Your task to perform on an android device: turn smart compose on in the gmail app Image 0: 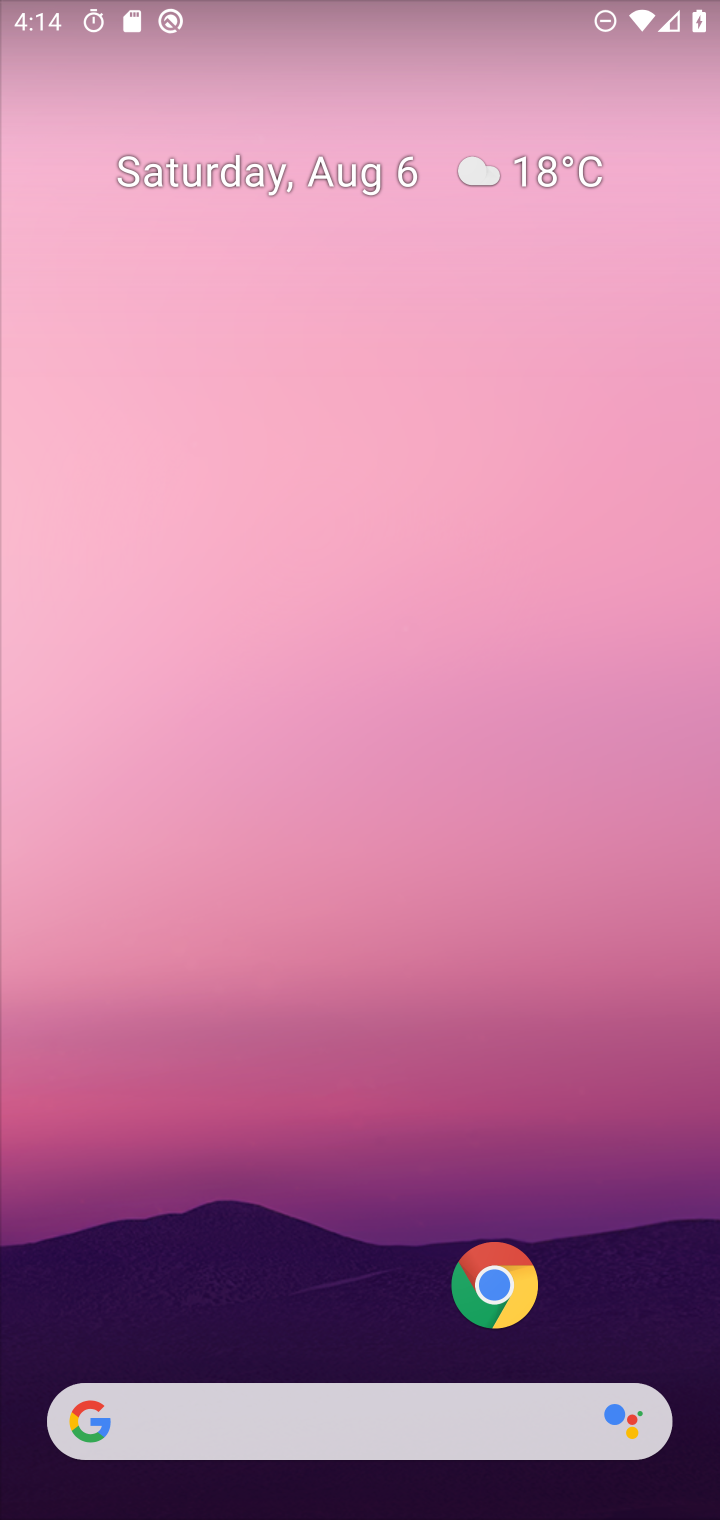
Step 0: drag from (368, 1288) to (403, 74)
Your task to perform on an android device: turn smart compose on in the gmail app Image 1: 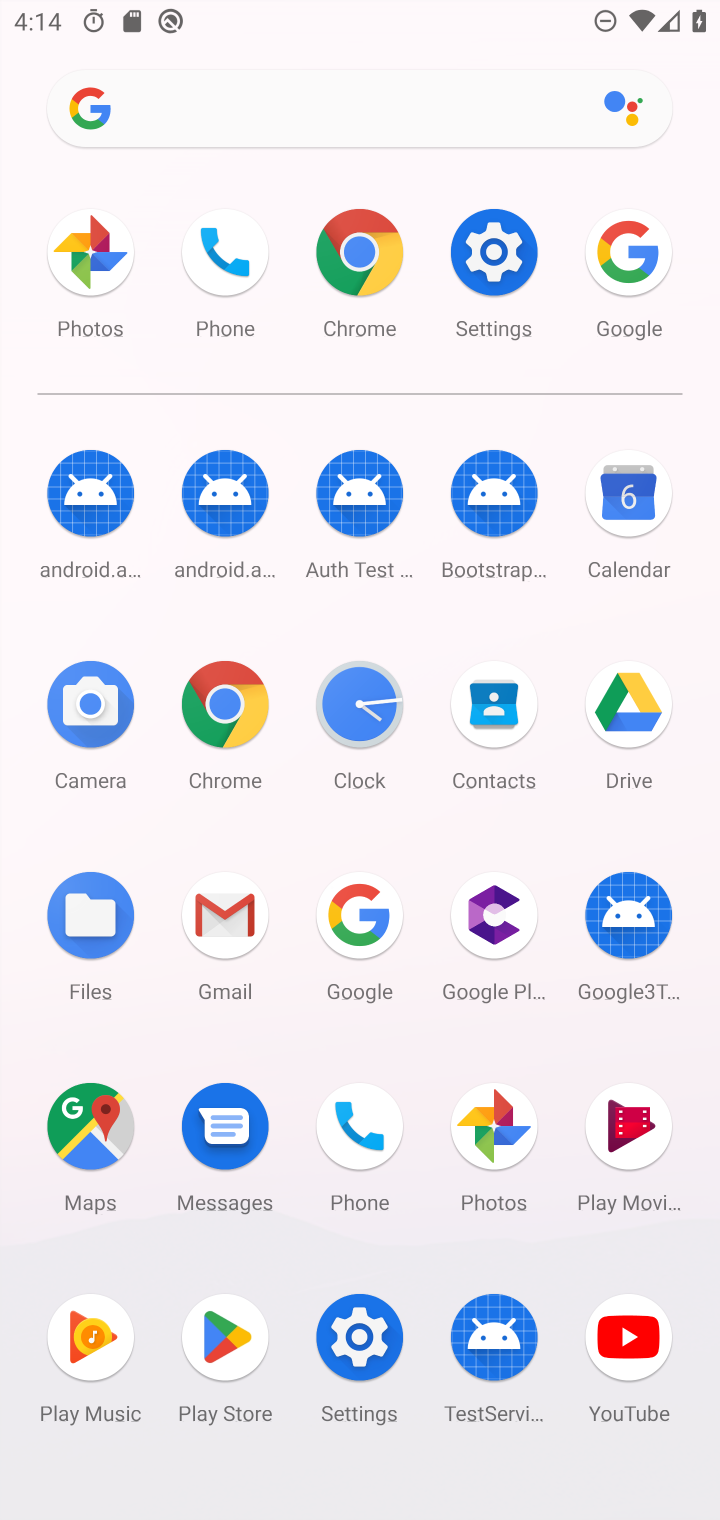
Step 1: click (211, 901)
Your task to perform on an android device: turn smart compose on in the gmail app Image 2: 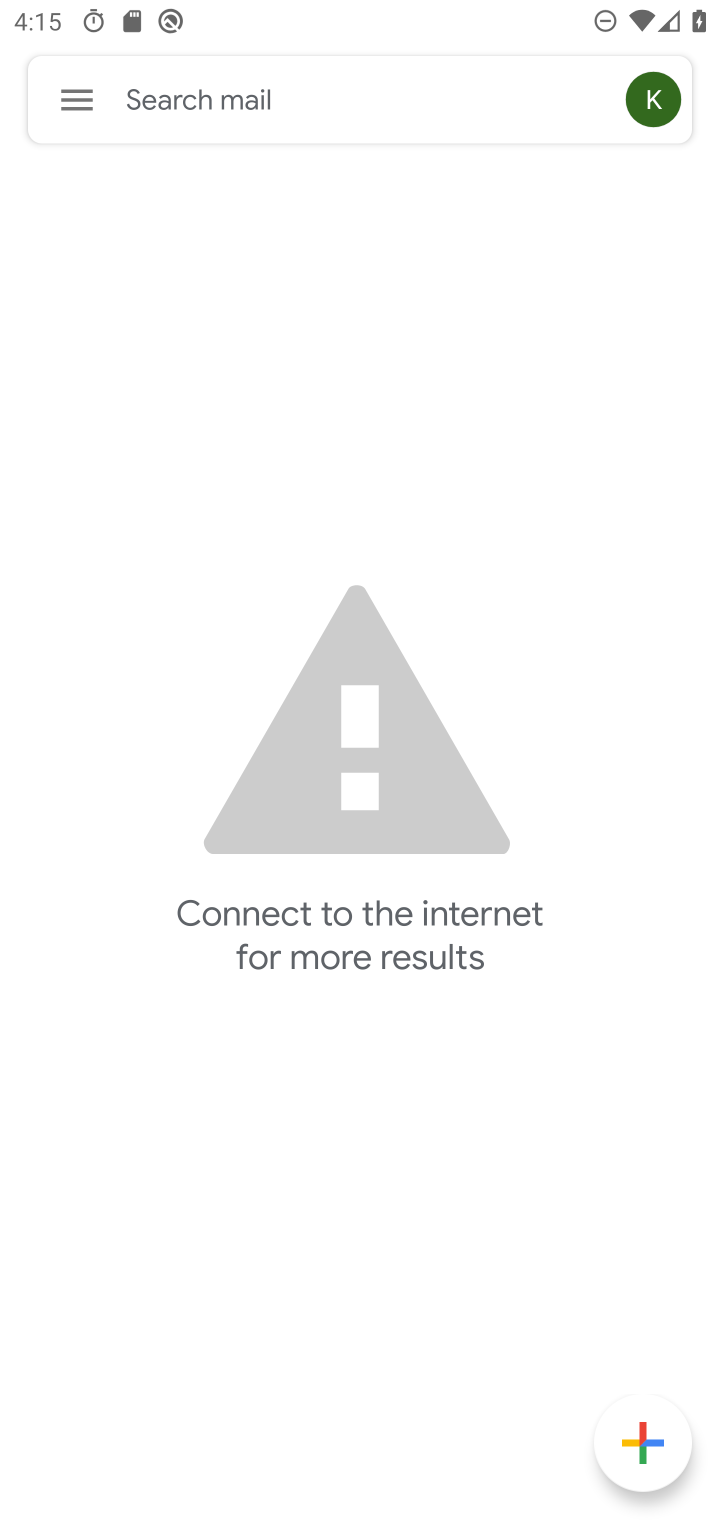
Step 2: press home button
Your task to perform on an android device: turn smart compose on in the gmail app Image 3: 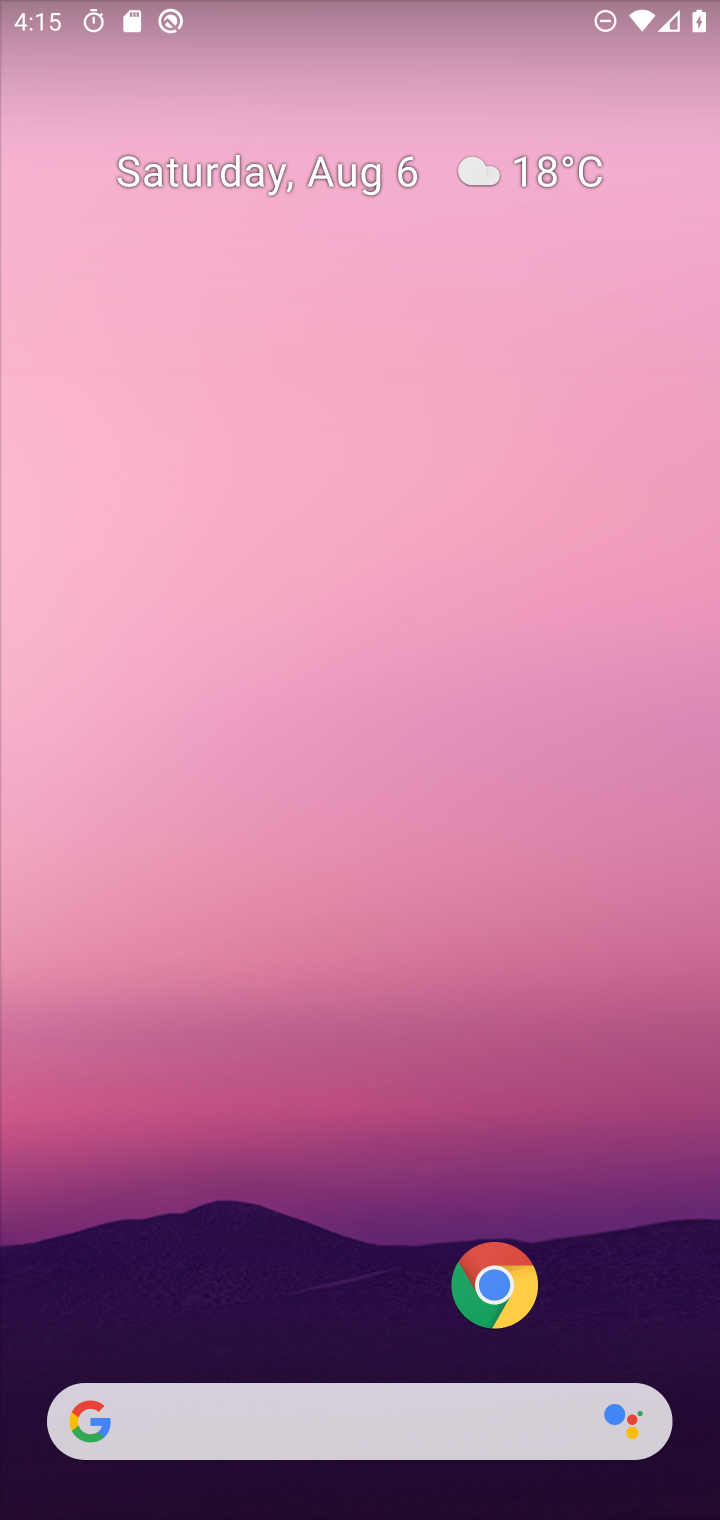
Step 3: drag from (340, 1320) to (294, 266)
Your task to perform on an android device: turn smart compose on in the gmail app Image 4: 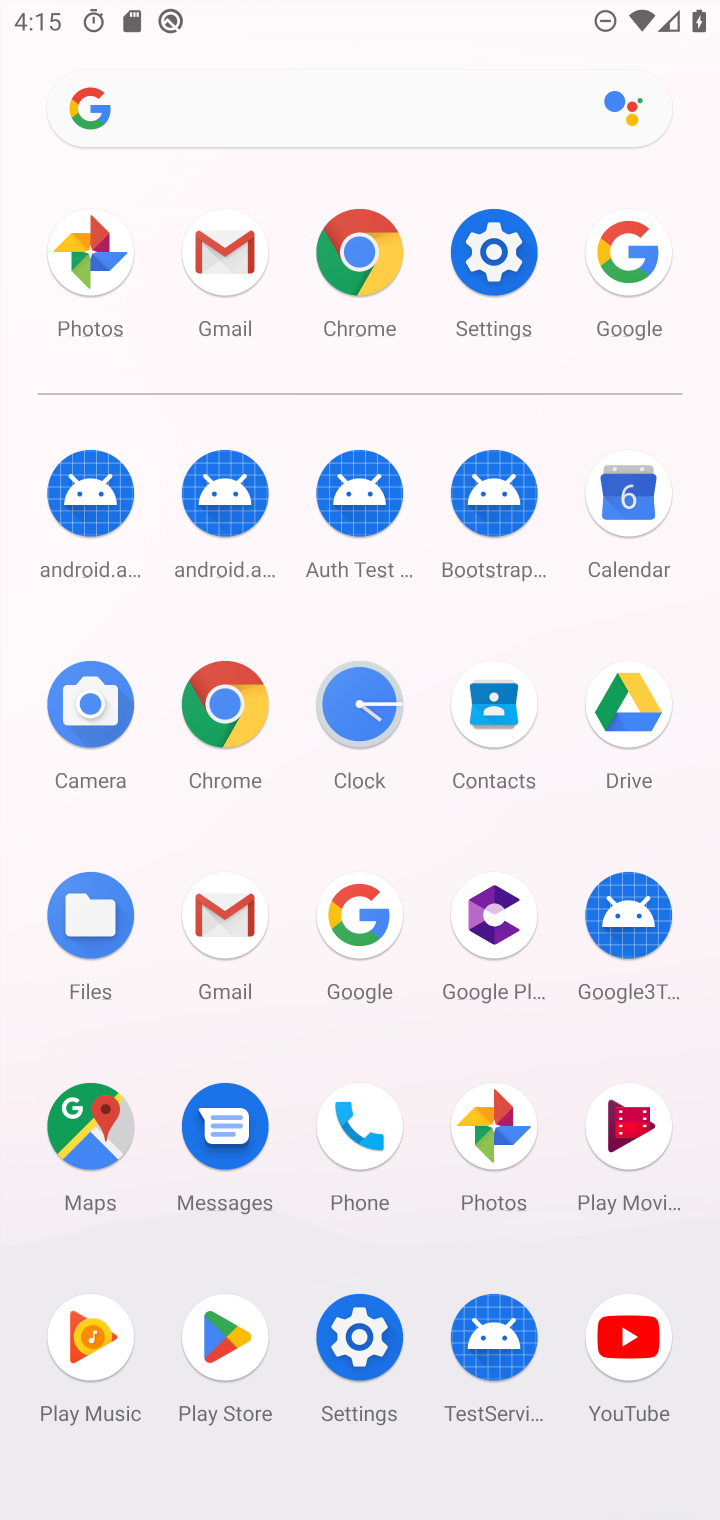
Step 4: click (220, 916)
Your task to perform on an android device: turn smart compose on in the gmail app Image 5: 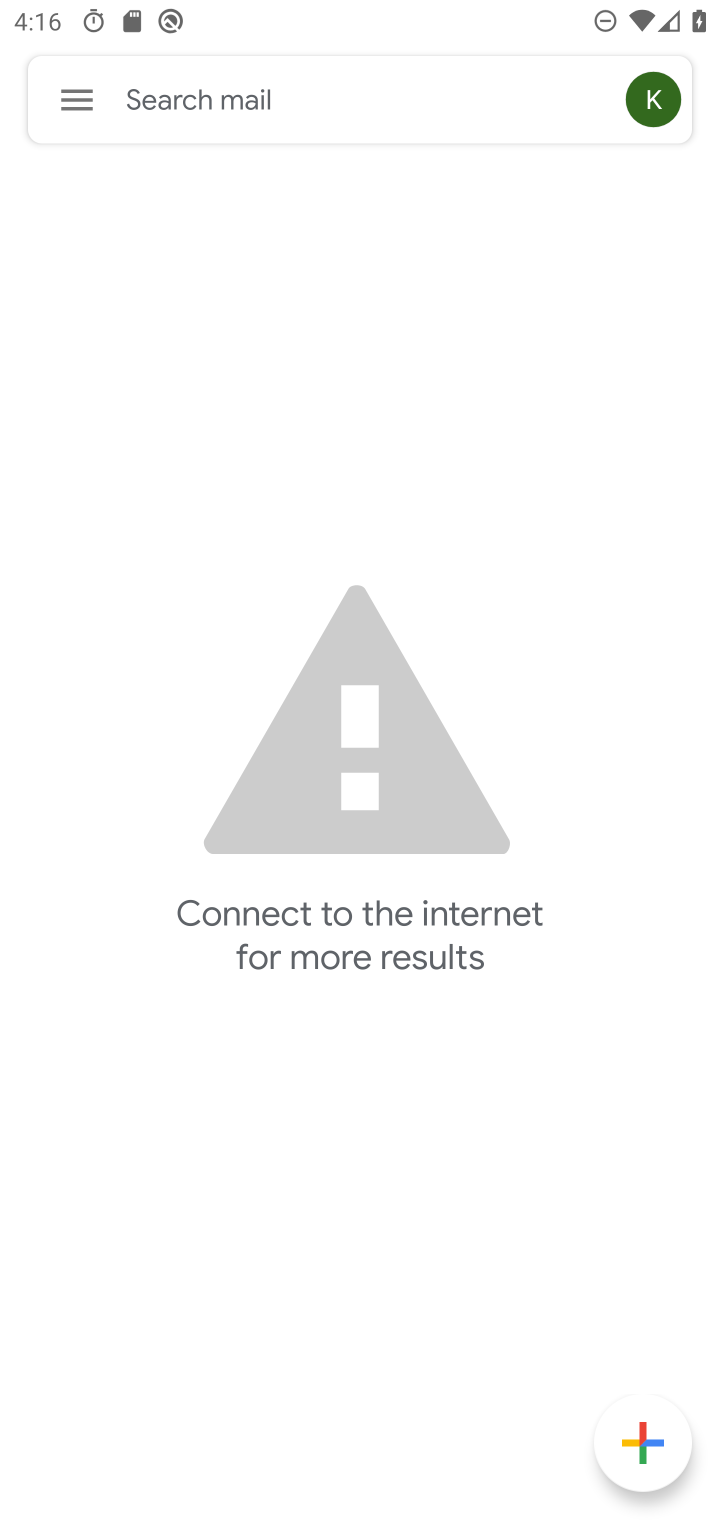
Step 5: click (75, 90)
Your task to perform on an android device: turn smart compose on in the gmail app Image 6: 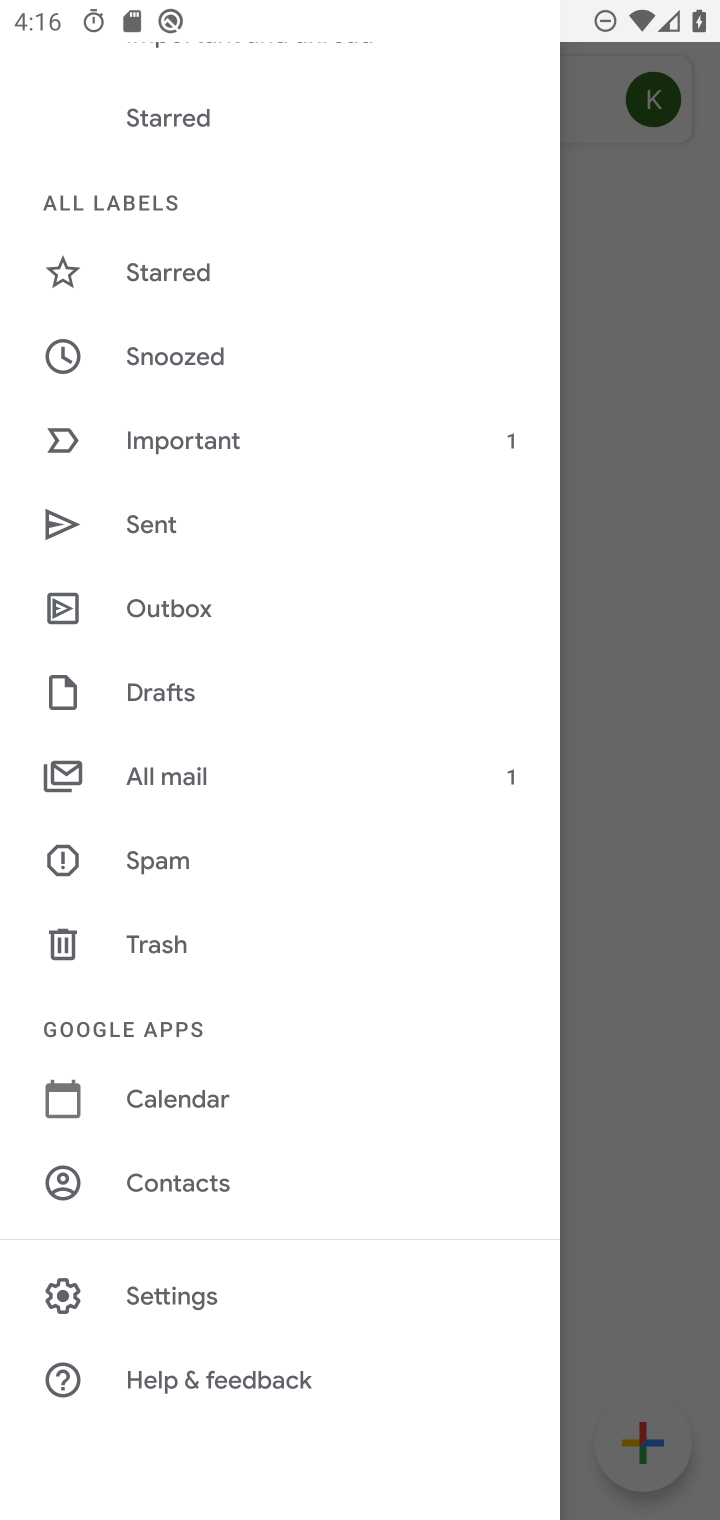
Step 6: click (236, 1285)
Your task to perform on an android device: turn smart compose on in the gmail app Image 7: 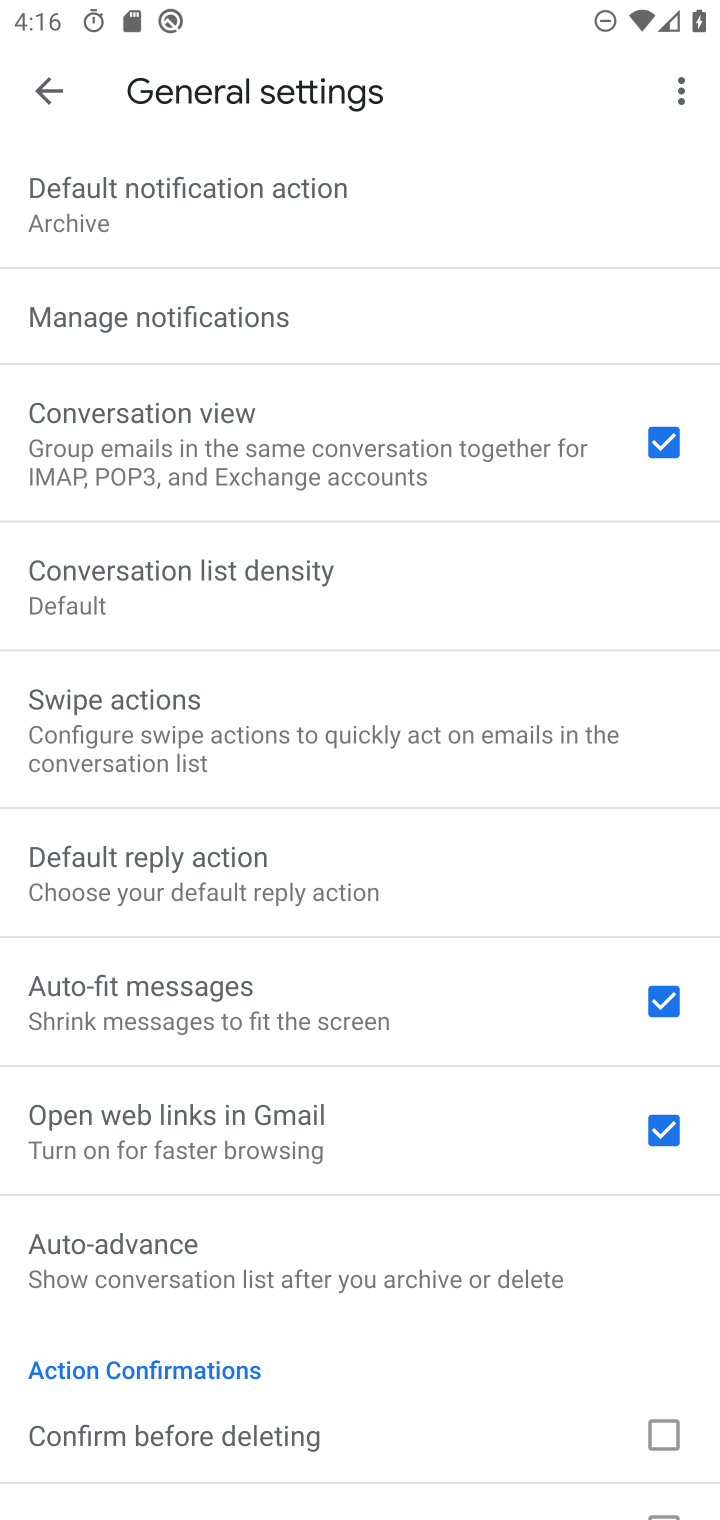
Step 7: click (33, 78)
Your task to perform on an android device: turn smart compose on in the gmail app Image 8: 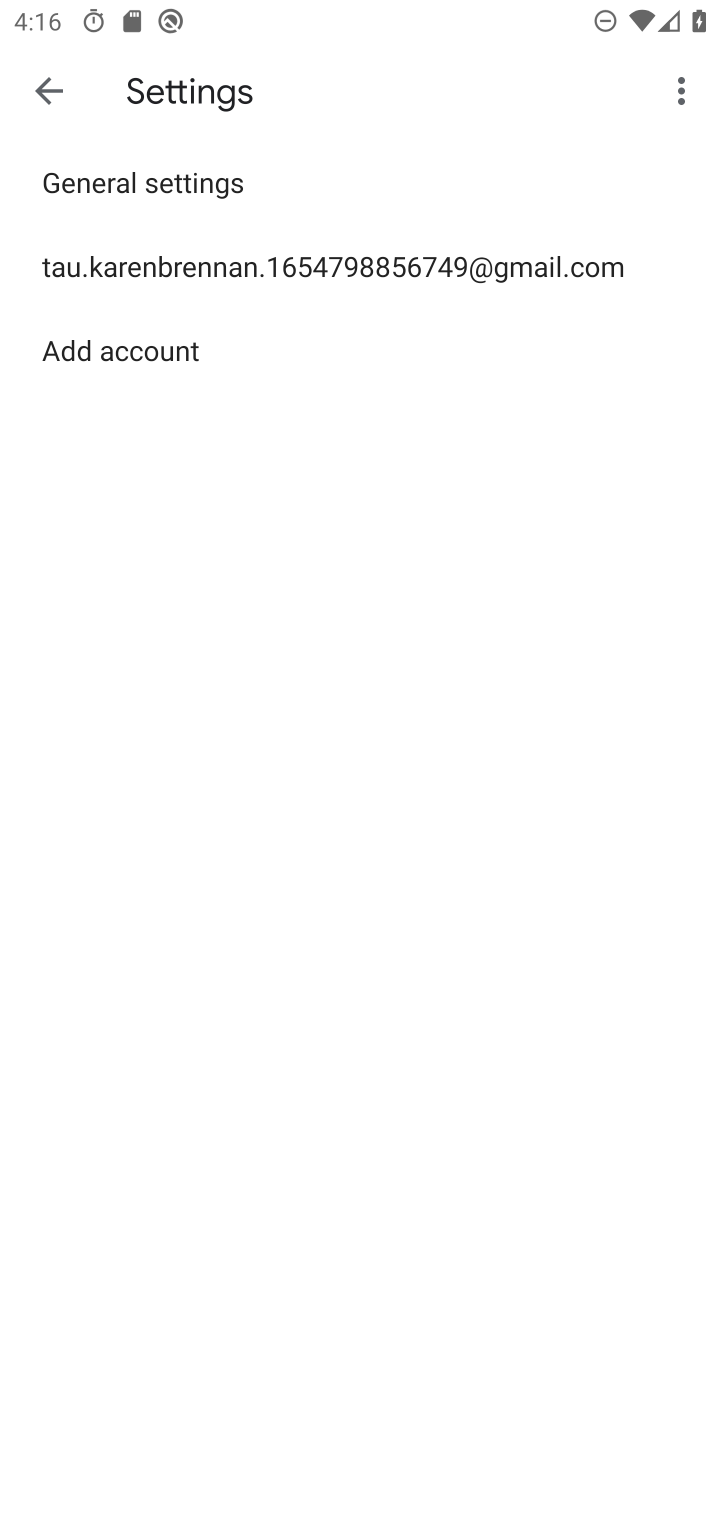
Step 8: click (240, 257)
Your task to perform on an android device: turn smart compose on in the gmail app Image 9: 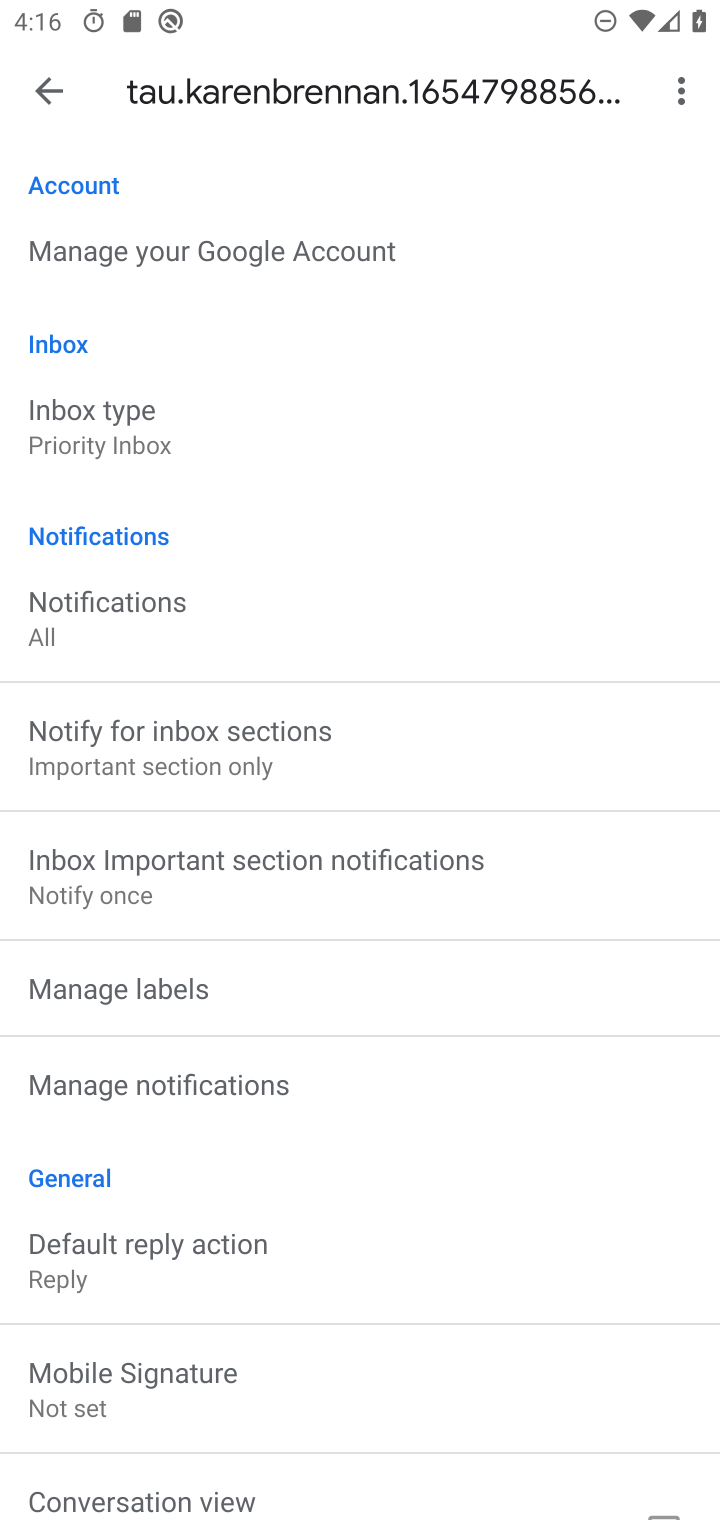
Step 9: task complete